Your task to perform on an android device: change your default location settings in chrome Image 0: 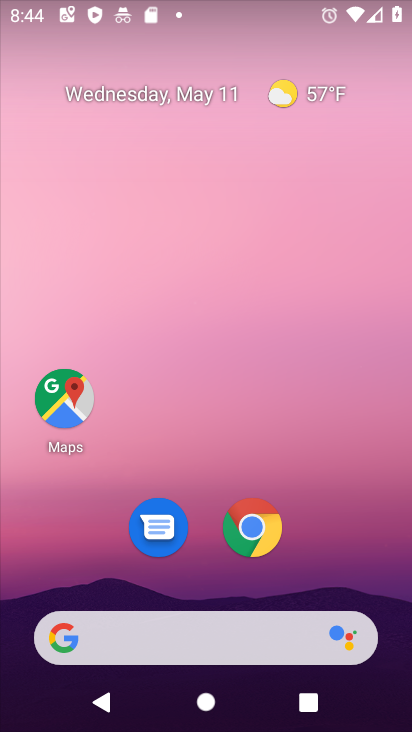
Step 0: click (249, 529)
Your task to perform on an android device: change your default location settings in chrome Image 1: 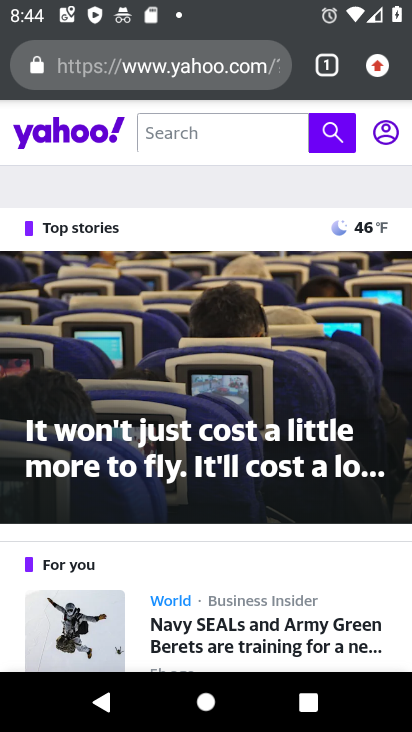
Step 1: click (371, 64)
Your task to perform on an android device: change your default location settings in chrome Image 2: 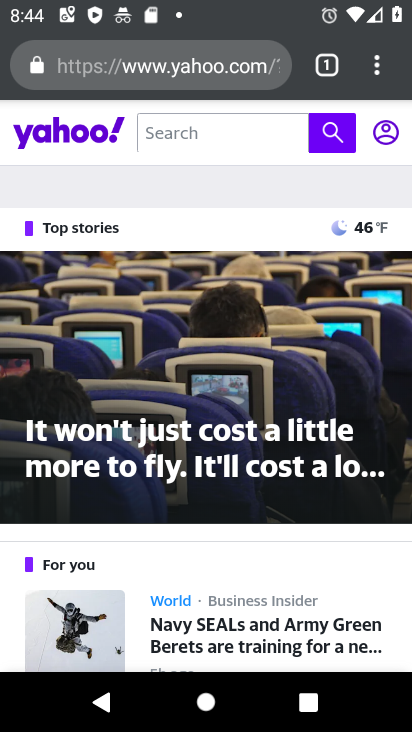
Step 2: click (385, 69)
Your task to perform on an android device: change your default location settings in chrome Image 3: 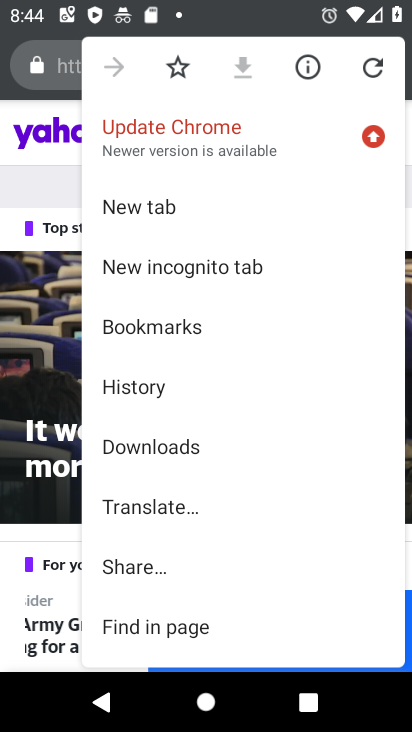
Step 3: drag from (220, 325) to (203, 57)
Your task to perform on an android device: change your default location settings in chrome Image 4: 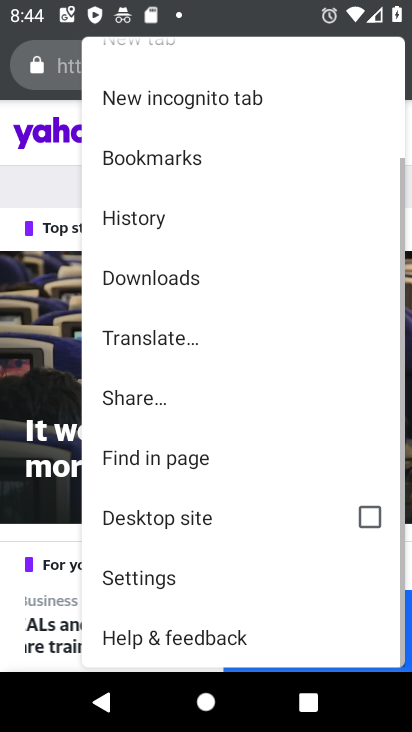
Step 4: click (166, 584)
Your task to perform on an android device: change your default location settings in chrome Image 5: 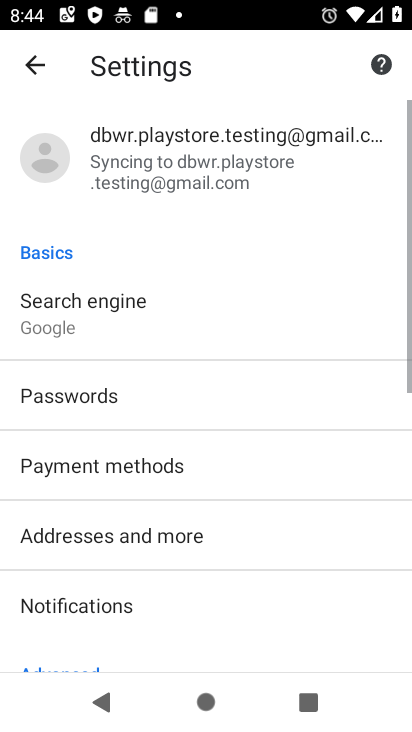
Step 5: drag from (166, 584) to (165, 156)
Your task to perform on an android device: change your default location settings in chrome Image 6: 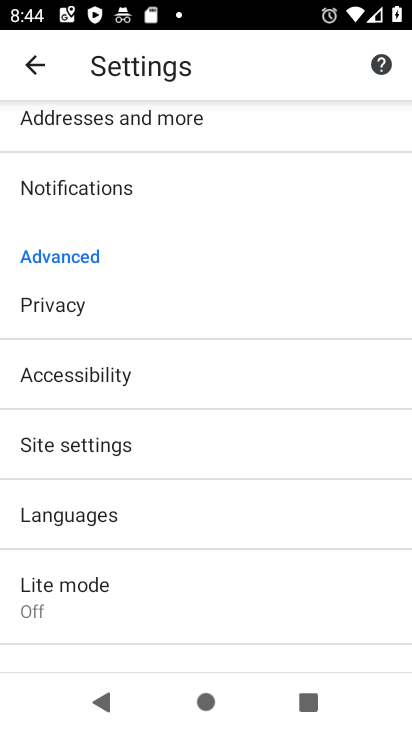
Step 6: click (105, 453)
Your task to perform on an android device: change your default location settings in chrome Image 7: 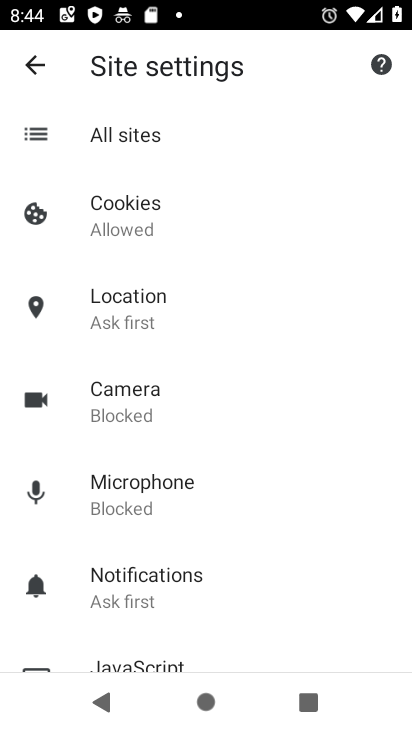
Step 7: click (117, 318)
Your task to perform on an android device: change your default location settings in chrome Image 8: 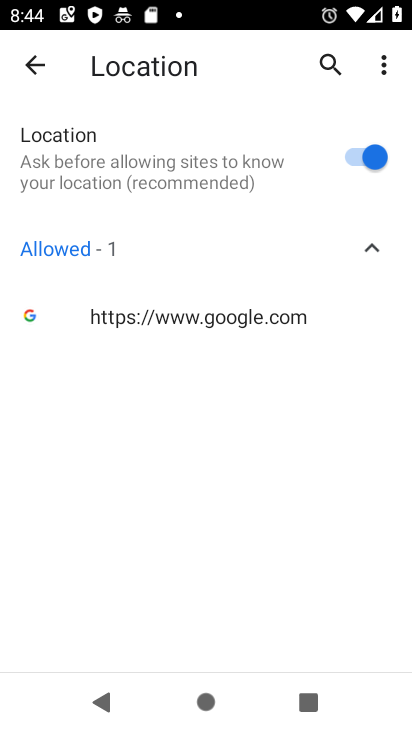
Step 8: click (371, 151)
Your task to perform on an android device: change your default location settings in chrome Image 9: 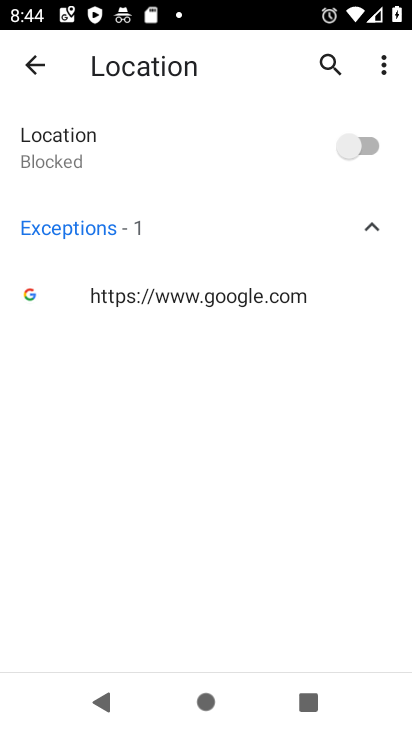
Step 9: task complete